Your task to perform on an android device: When is my next meeting? Image 0: 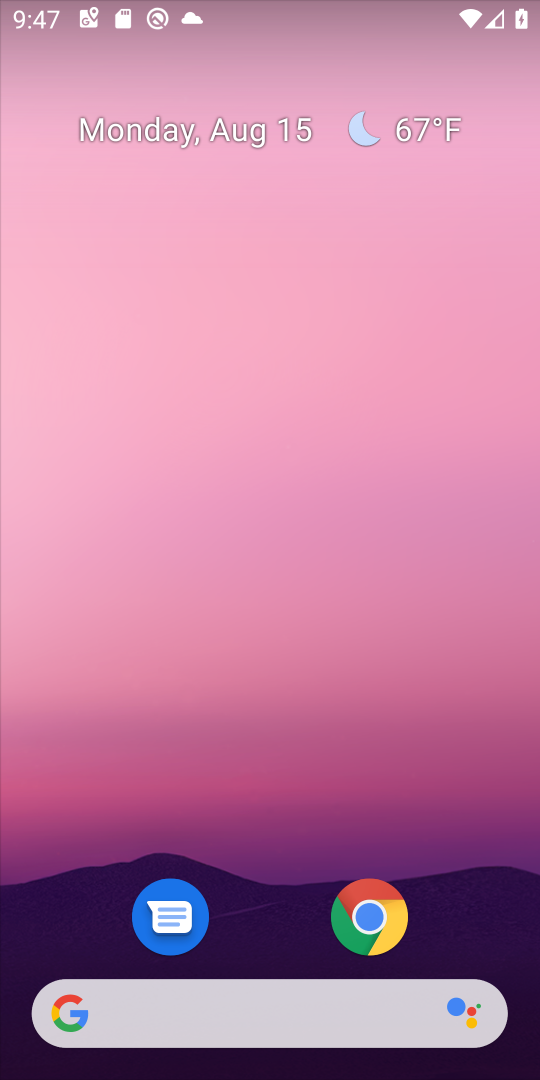
Step 0: drag from (270, 853) to (341, 3)
Your task to perform on an android device: When is my next meeting? Image 1: 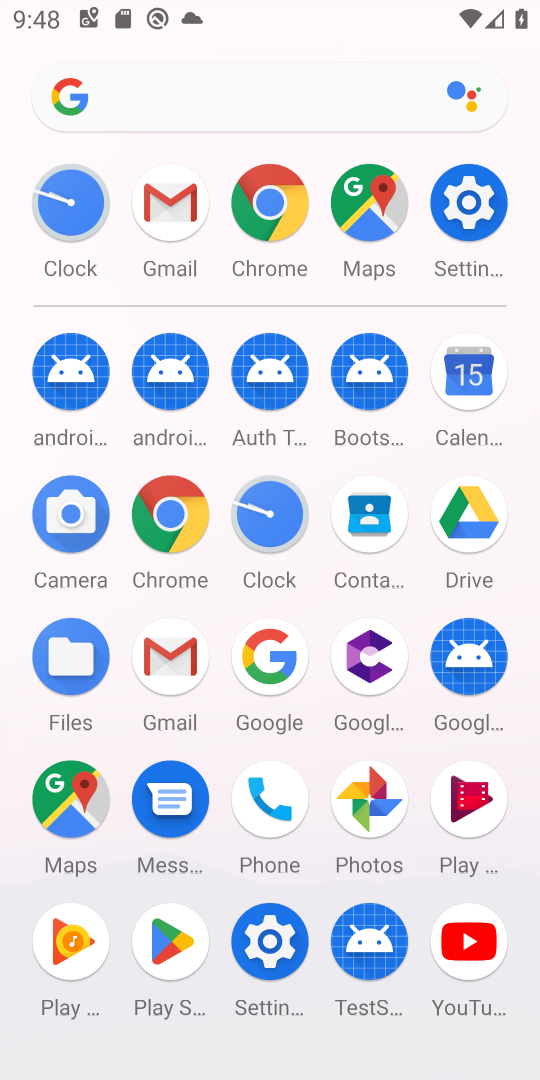
Step 1: click (464, 373)
Your task to perform on an android device: When is my next meeting? Image 2: 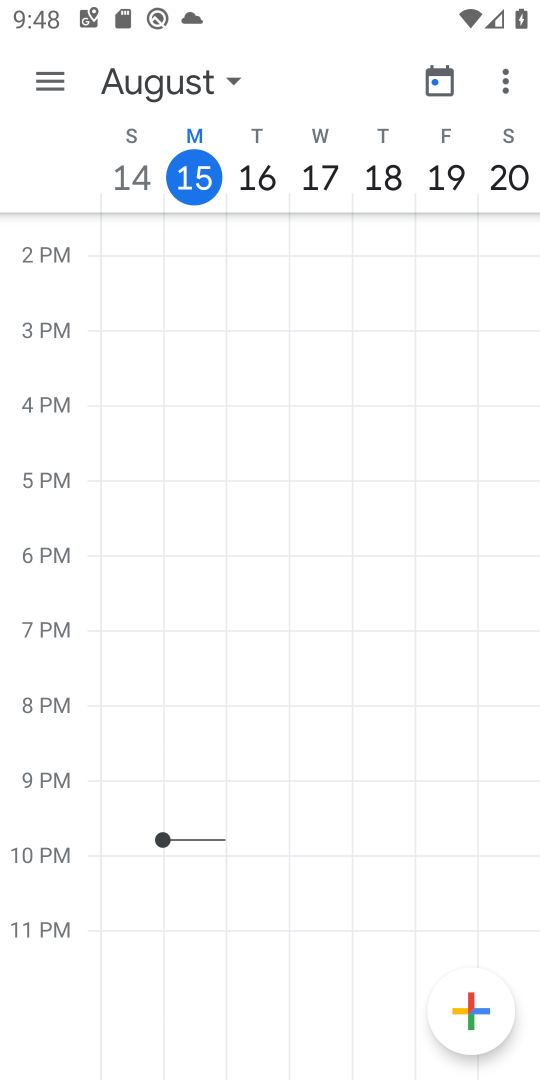
Step 2: click (197, 170)
Your task to perform on an android device: When is my next meeting? Image 3: 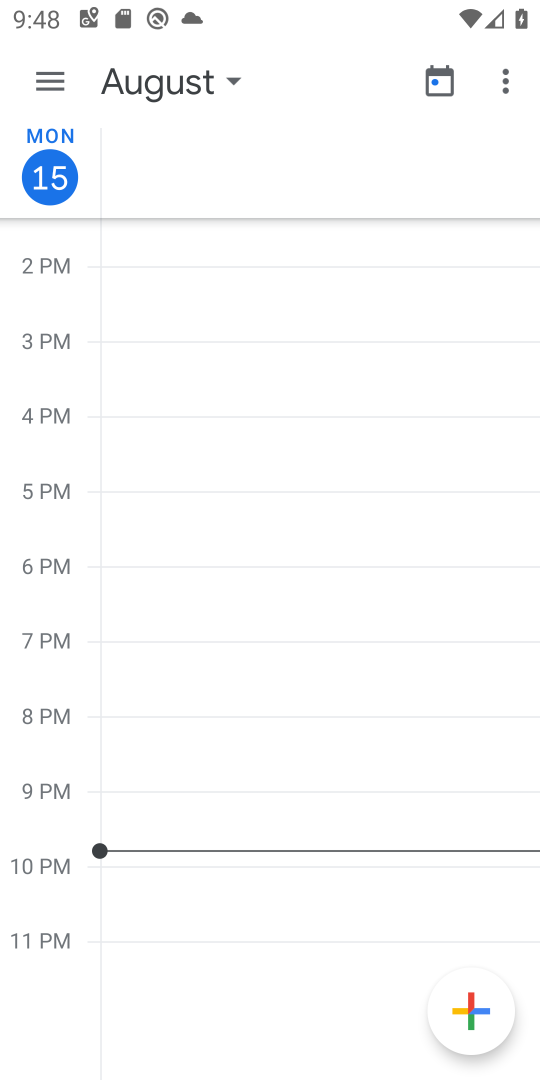
Step 3: click (47, 173)
Your task to perform on an android device: When is my next meeting? Image 4: 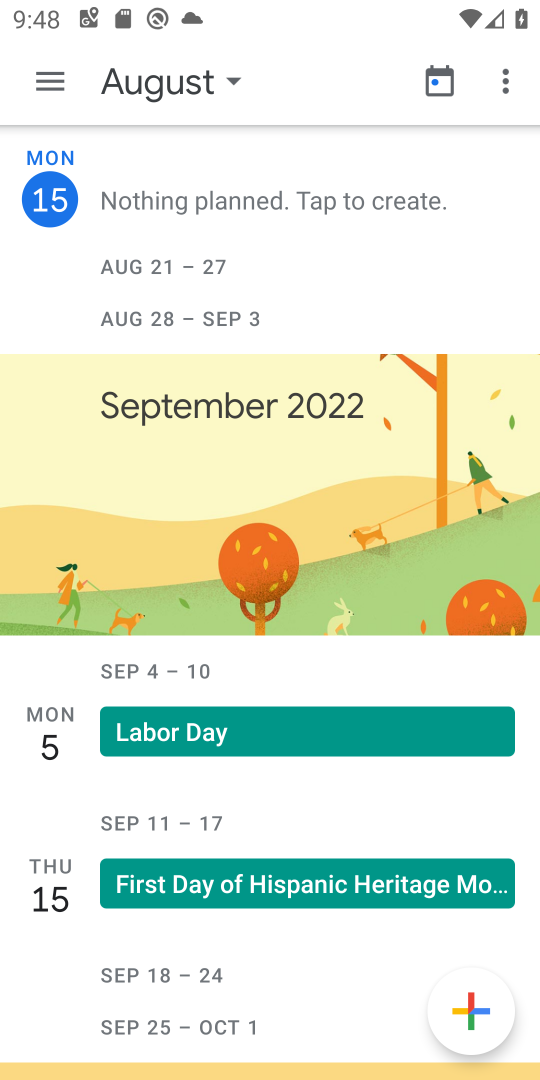
Step 4: task complete